Your task to perform on an android device: open chrome privacy settings Image 0: 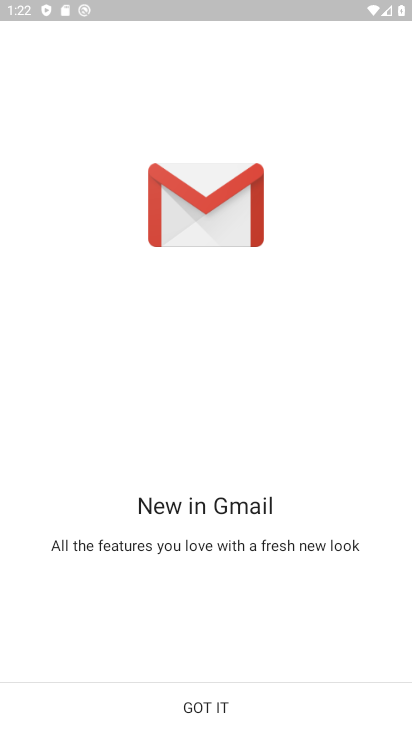
Step 0: press back button
Your task to perform on an android device: open chrome privacy settings Image 1: 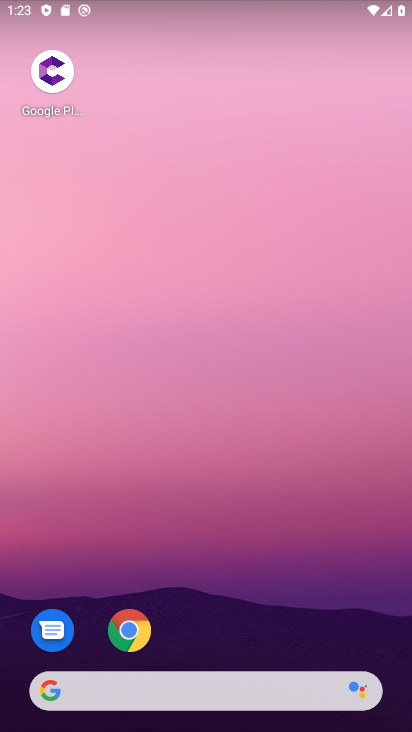
Step 1: click (124, 638)
Your task to perform on an android device: open chrome privacy settings Image 2: 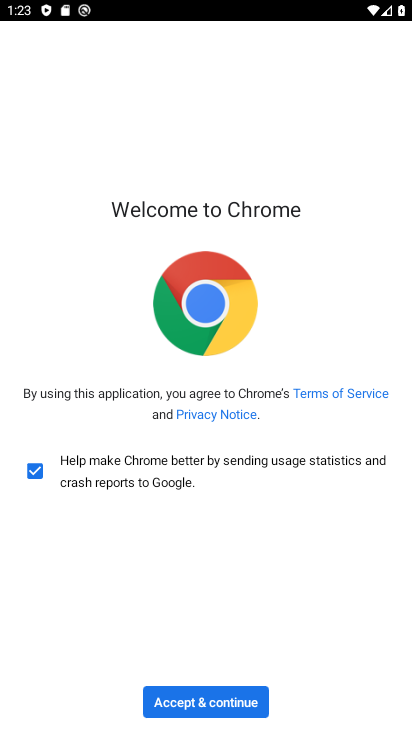
Step 2: click (161, 702)
Your task to perform on an android device: open chrome privacy settings Image 3: 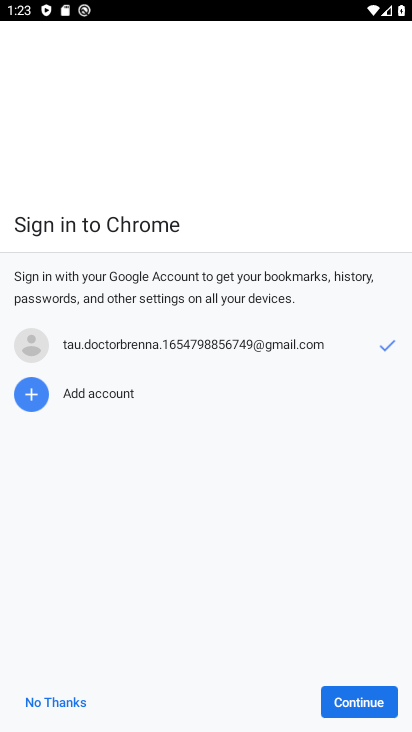
Step 3: click (337, 705)
Your task to perform on an android device: open chrome privacy settings Image 4: 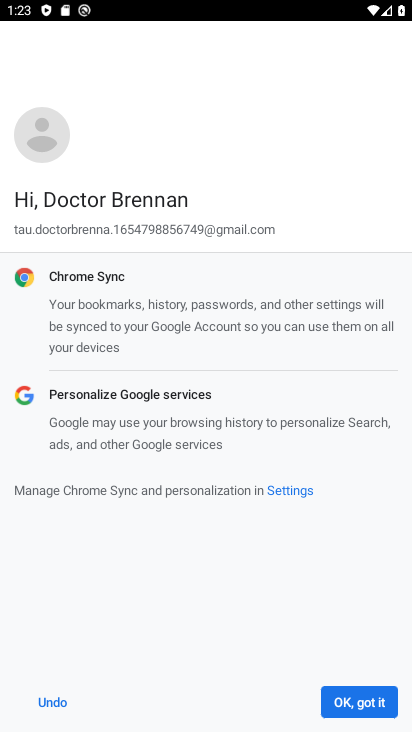
Step 4: click (364, 705)
Your task to perform on an android device: open chrome privacy settings Image 5: 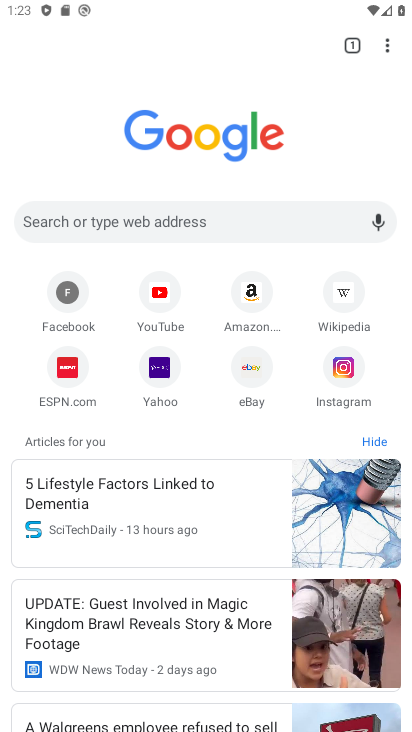
Step 5: click (387, 42)
Your task to perform on an android device: open chrome privacy settings Image 6: 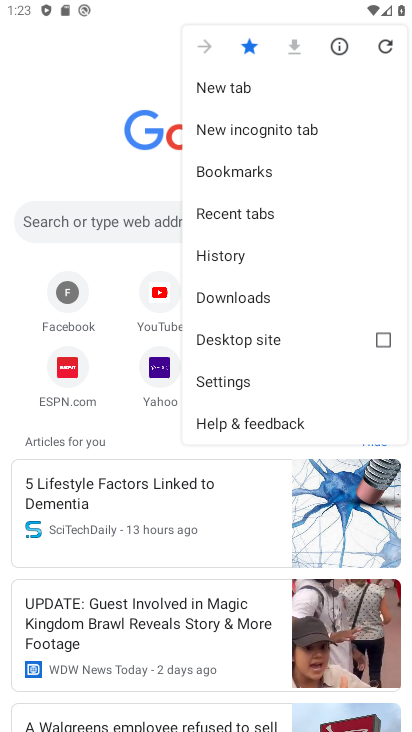
Step 6: click (231, 379)
Your task to perform on an android device: open chrome privacy settings Image 7: 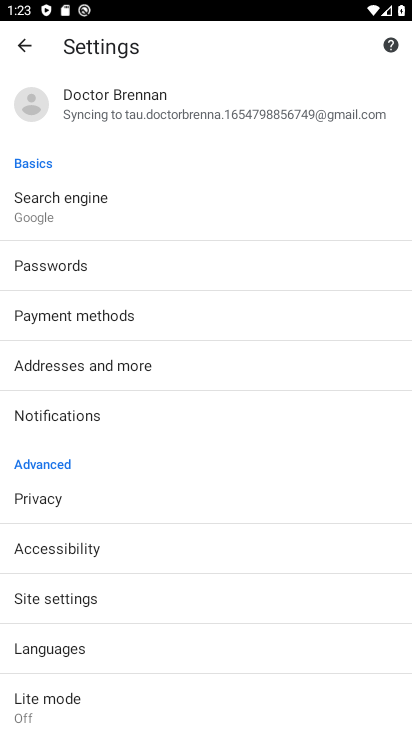
Step 7: click (44, 503)
Your task to perform on an android device: open chrome privacy settings Image 8: 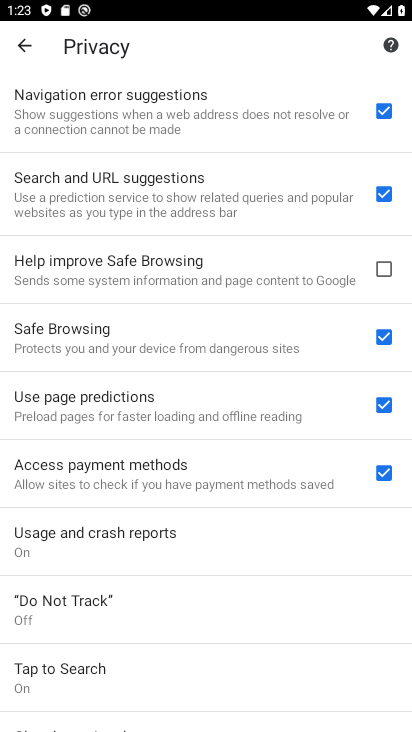
Step 8: task complete